Your task to perform on an android device: Clear all items from cart on target. Image 0: 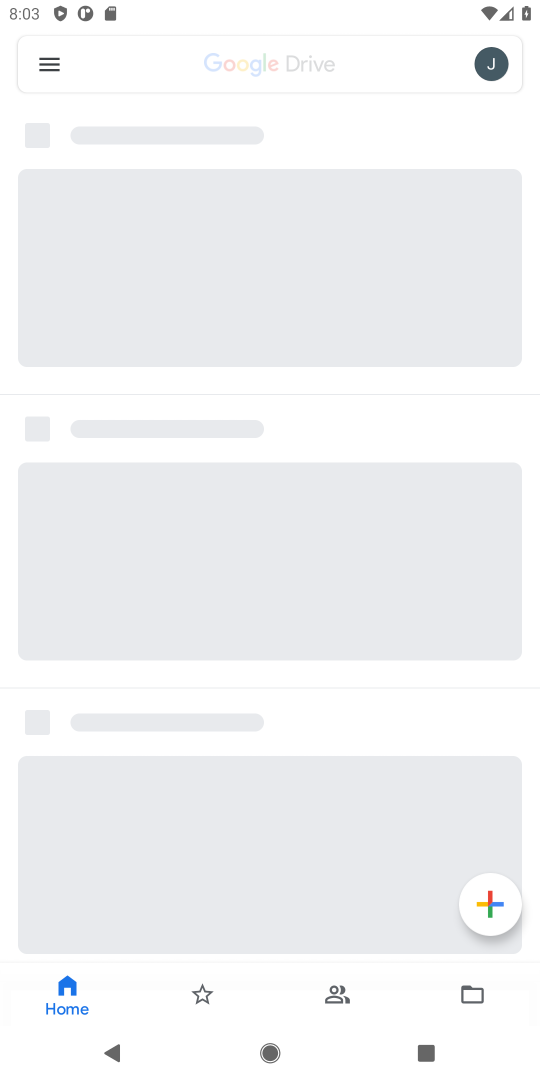
Step 0: press home button
Your task to perform on an android device: Clear all items from cart on target. Image 1: 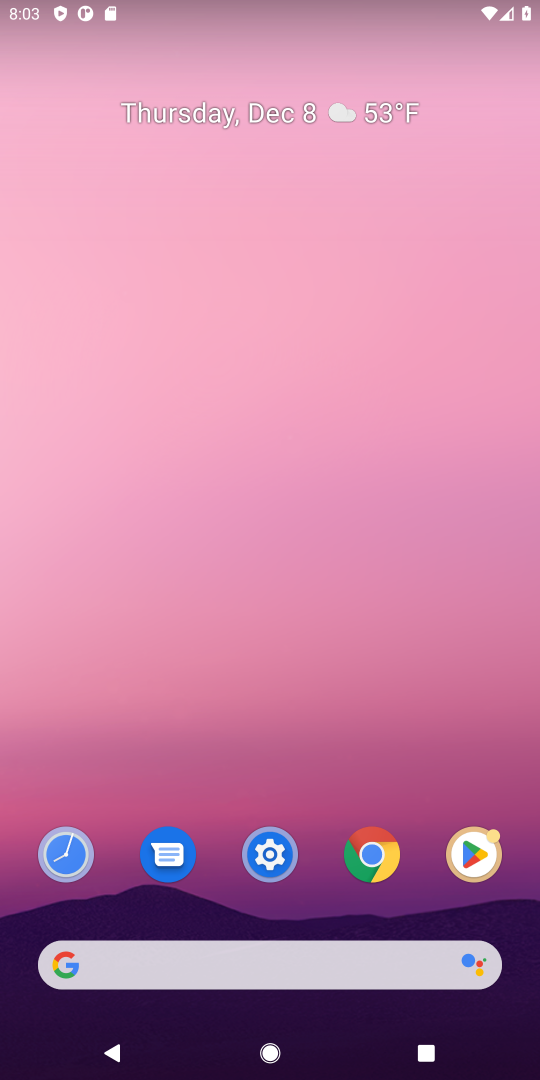
Step 1: click (86, 957)
Your task to perform on an android device: Clear all items from cart on target. Image 2: 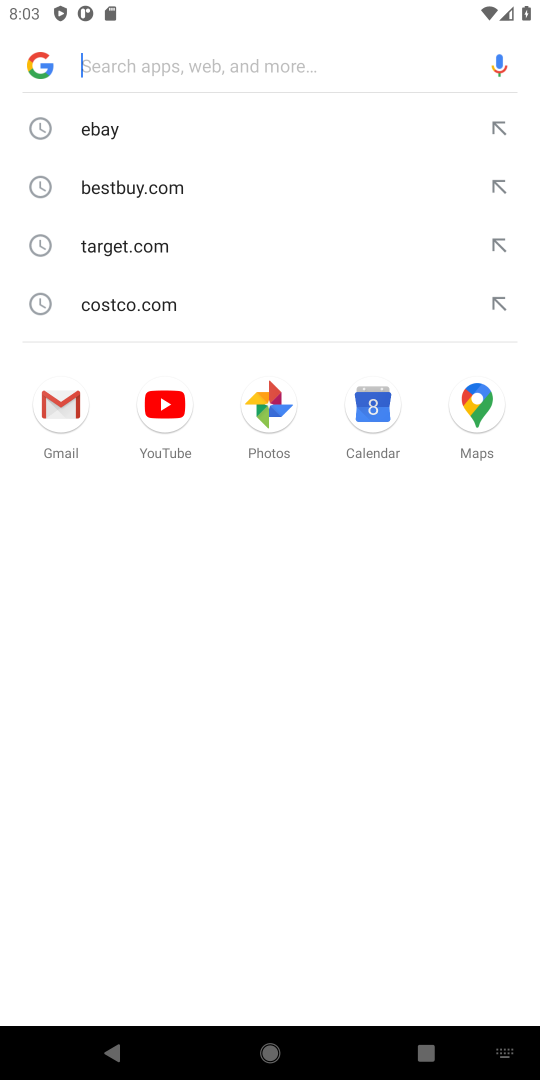
Step 2: press enter
Your task to perform on an android device: Clear all items from cart on target. Image 3: 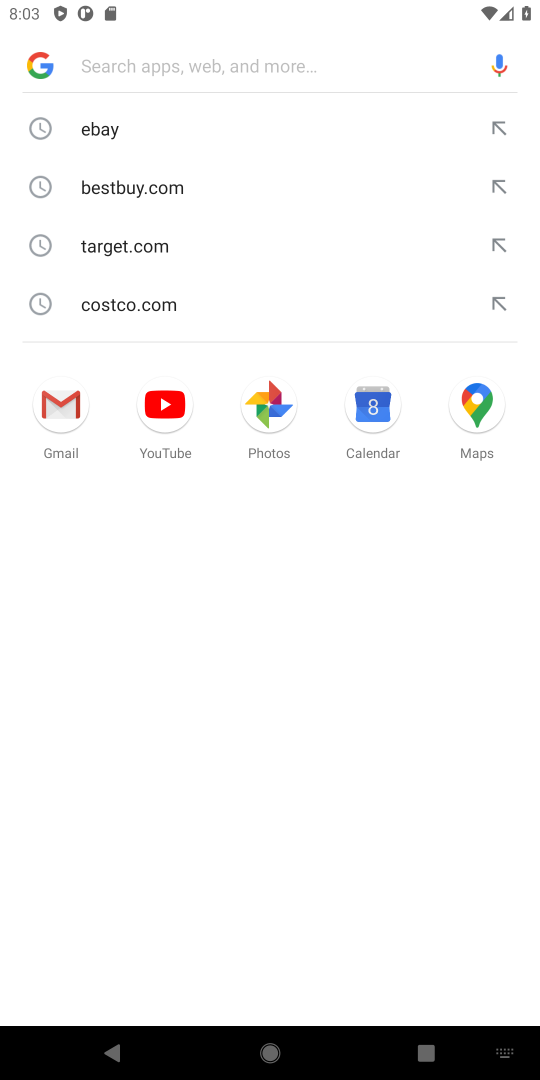
Step 3: type "target"
Your task to perform on an android device: Clear all items from cart on target. Image 4: 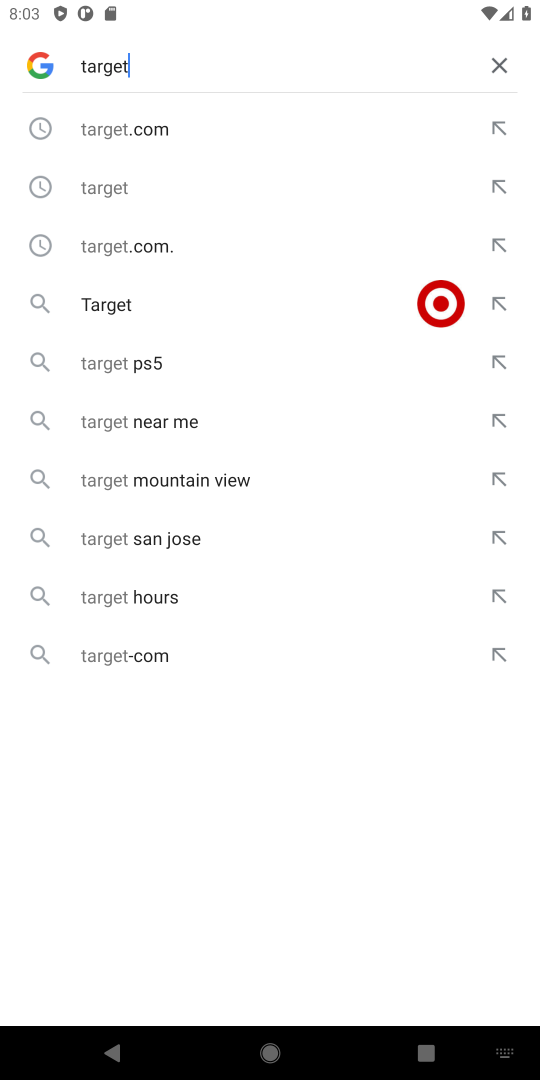
Step 4: press enter
Your task to perform on an android device: Clear all items from cart on target. Image 5: 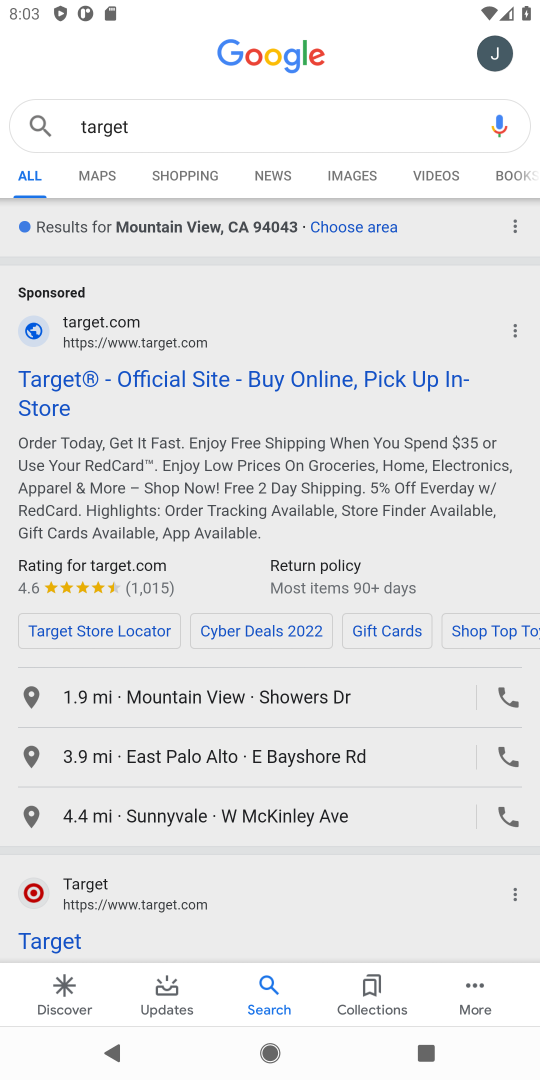
Step 5: click (168, 377)
Your task to perform on an android device: Clear all items from cart on target. Image 6: 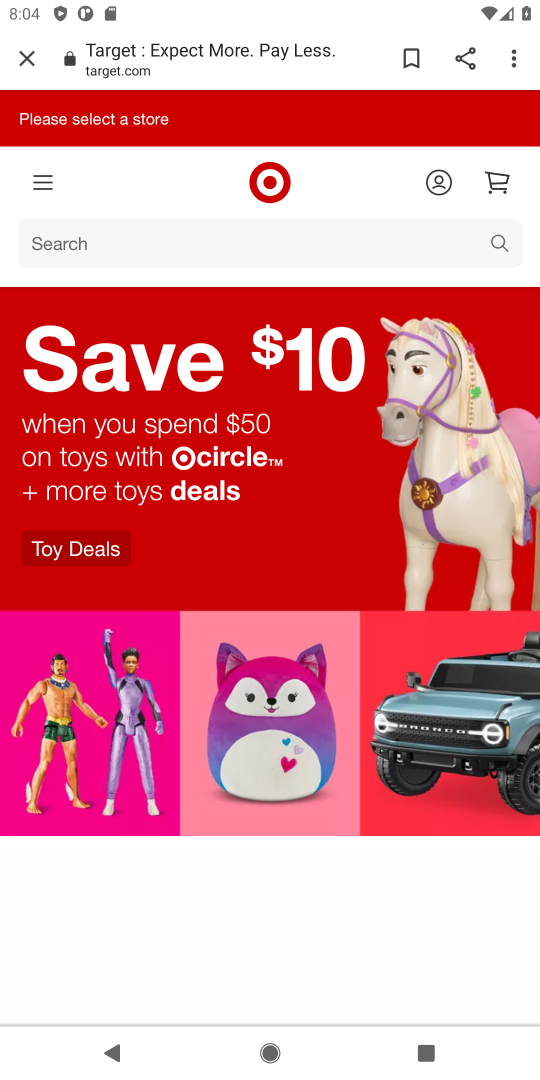
Step 6: click (496, 175)
Your task to perform on an android device: Clear all items from cart on target. Image 7: 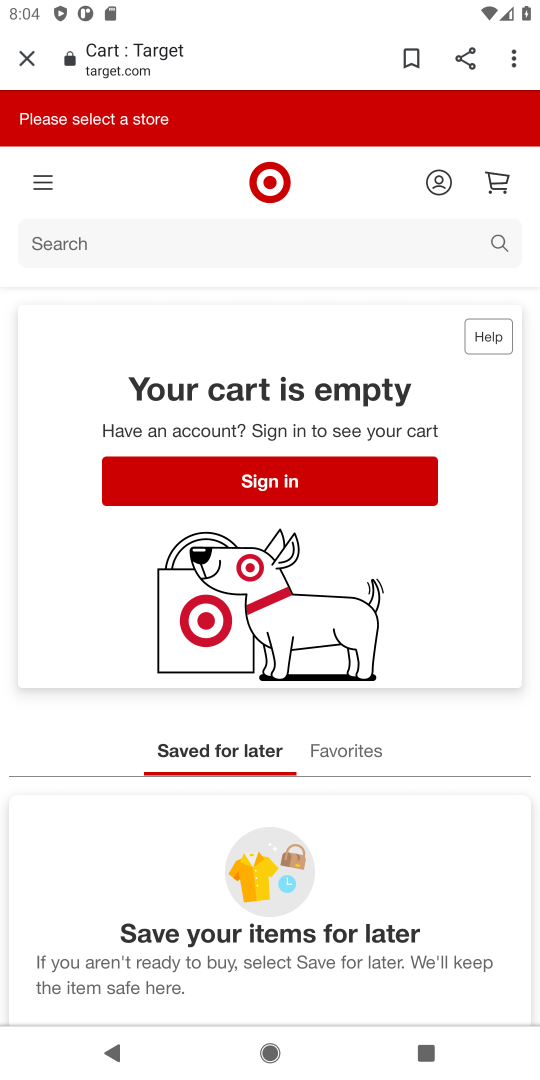
Step 7: task complete